Your task to perform on an android device: Open battery settings Image 0: 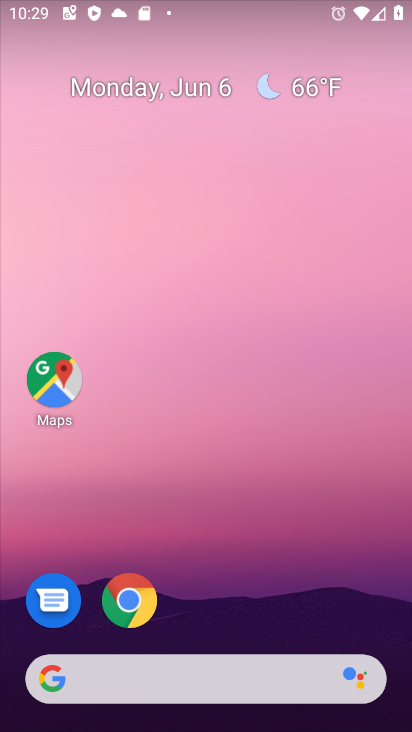
Step 0: press home button
Your task to perform on an android device: Open battery settings Image 1: 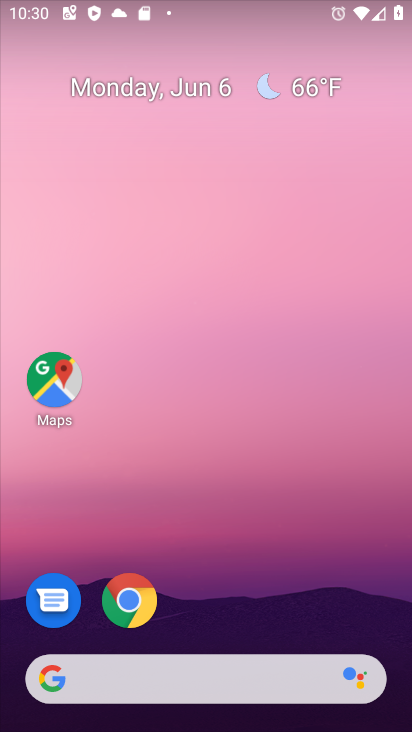
Step 1: drag from (19, 664) to (228, 125)
Your task to perform on an android device: Open battery settings Image 2: 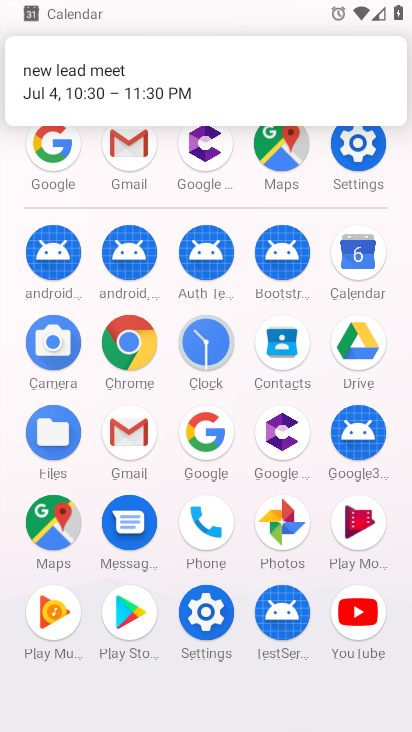
Step 2: click (365, 150)
Your task to perform on an android device: Open battery settings Image 3: 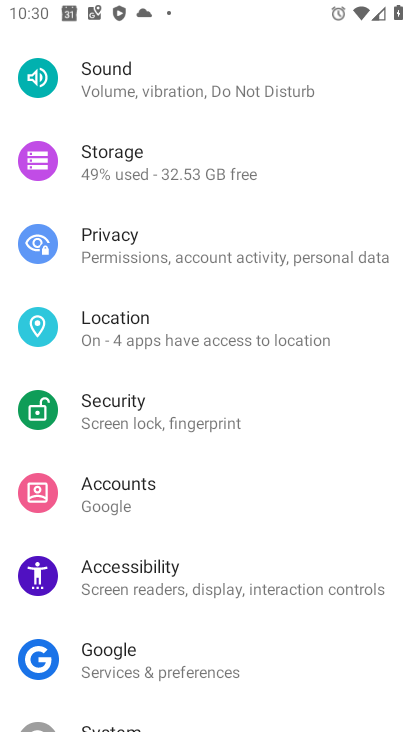
Step 3: drag from (134, 252) to (54, 717)
Your task to perform on an android device: Open battery settings Image 4: 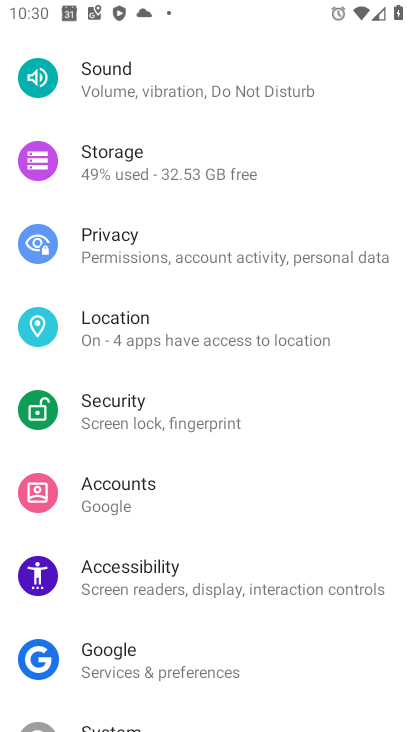
Step 4: drag from (67, 173) to (84, 527)
Your task to perform on an android device: Open battery settings Image 5: 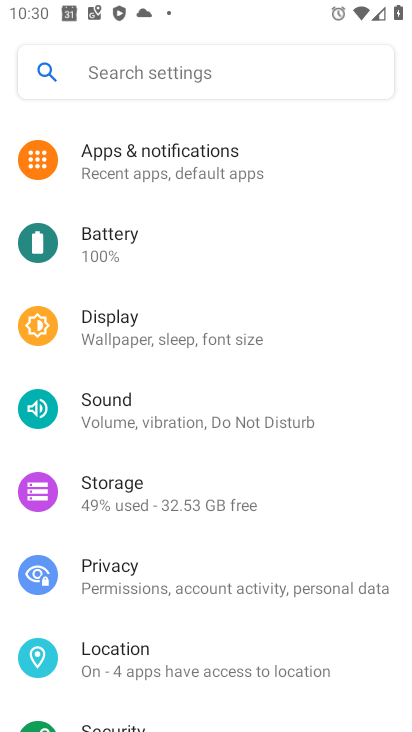
Step 5: click (87, 245)
Your task to perform on an android device: Open battery settings Image 6: 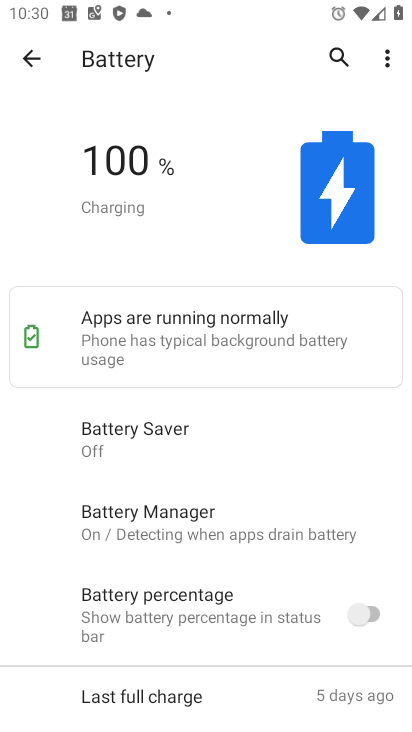
Step 6: task complete